Your task to perform on an android device: Go to display settings Image 0: 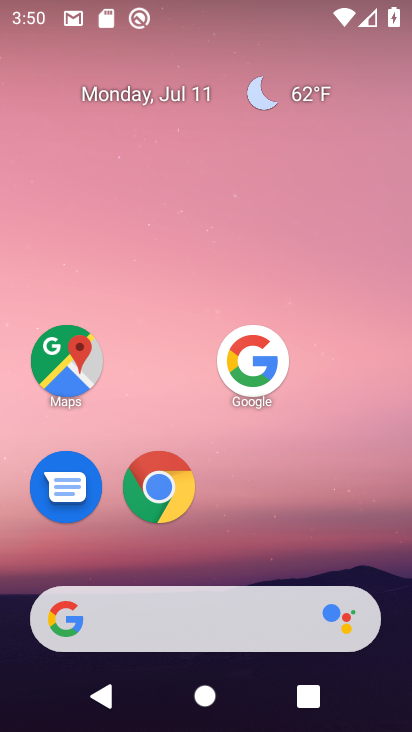
Step 0: drag from (184, 613) to (342, 0)
Your task to perform on an android device: Go to display settings Image 1: 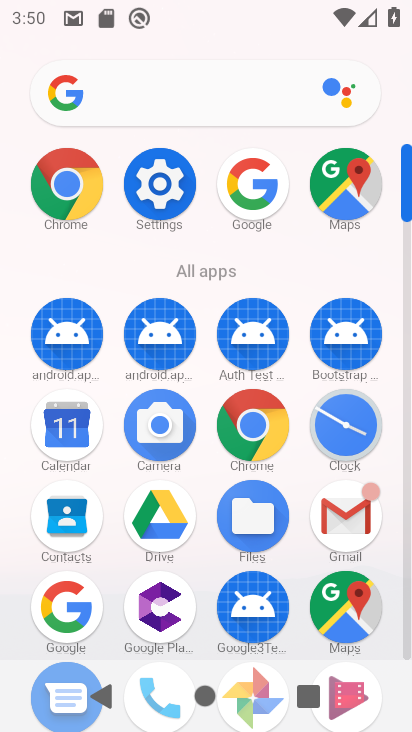
Step 1: click (143, 174)
Your task to perform on an android device: Go to display settings Image 2: 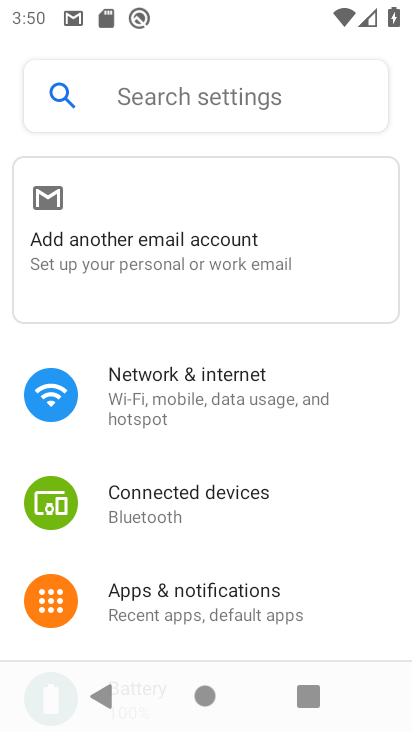
Step 2: drag from (297, 599) to (339, 348)
Your task to perform on an android device: Go to display settings Image 3: 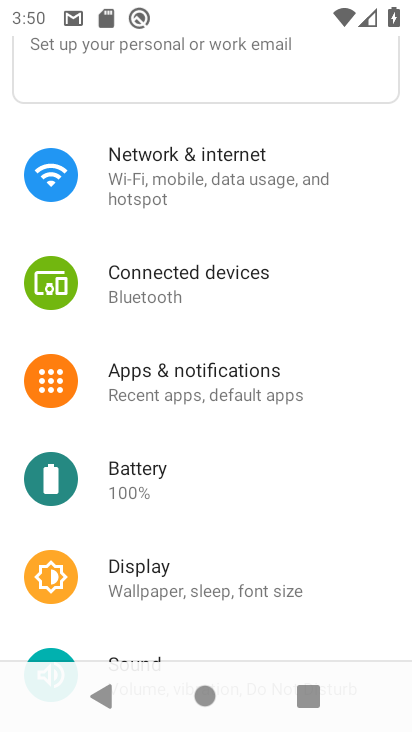
Step 3: click (162, 574)
Your task to perform on an android device: Go to display settings Image 4: 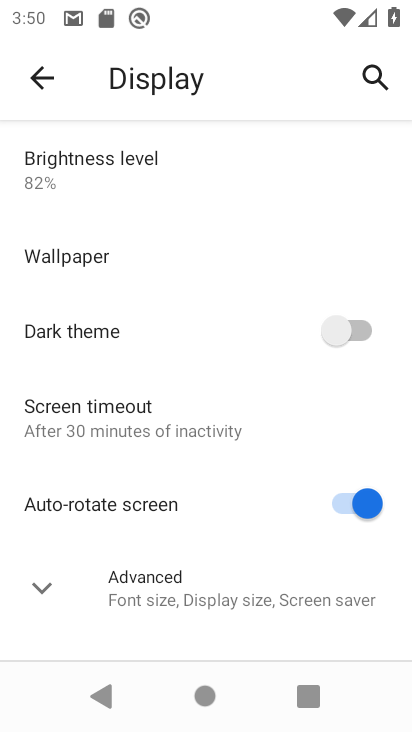
Step 4: drag from (271, 192) to (331, 3)
Your task to perform on an android device: Go to display settings Image 5: 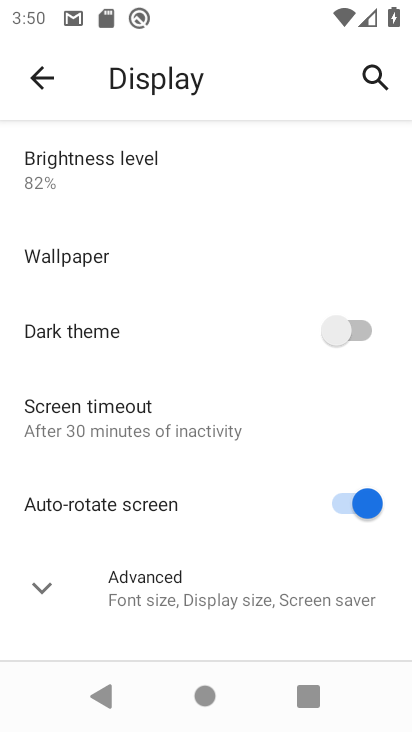
Step 5: click (96, 587)
Your task to perform on an android device: Go to display settings Image 6: 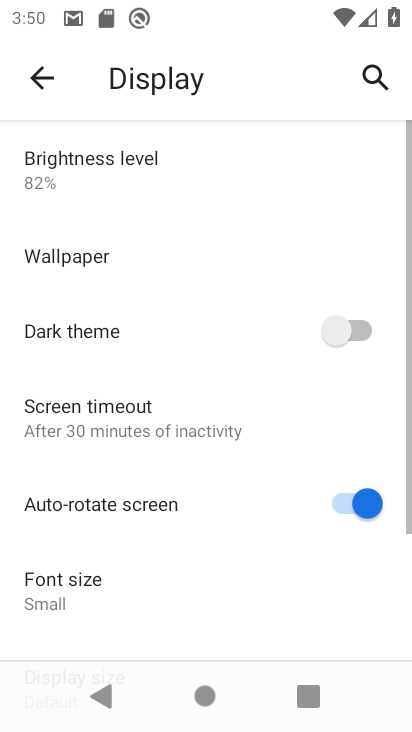
Step 6: task complete